Your task to perform on an android device: What's the weather? Image 0: 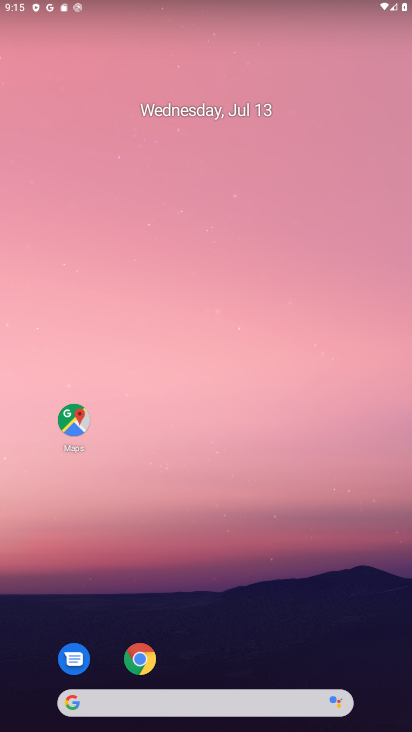
Step 0: drag from (204, 560) to (215, 320)
Your task to perform on an android device: What's the weather? Image 1: 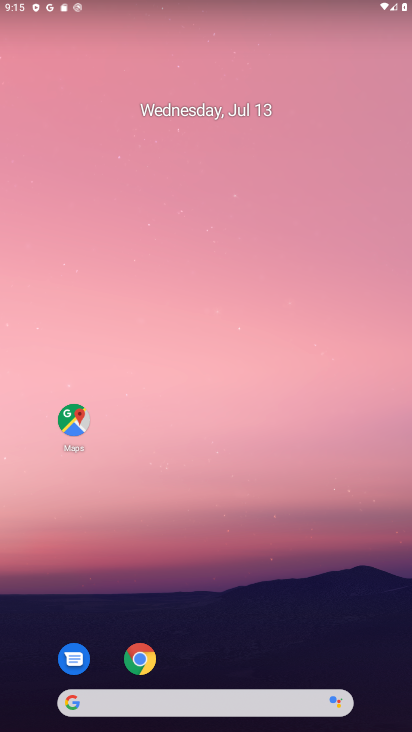
Step 1: drag from (207, 627) to (213, 118)
Your task to perform on an android device: What's the weather? Image 2: 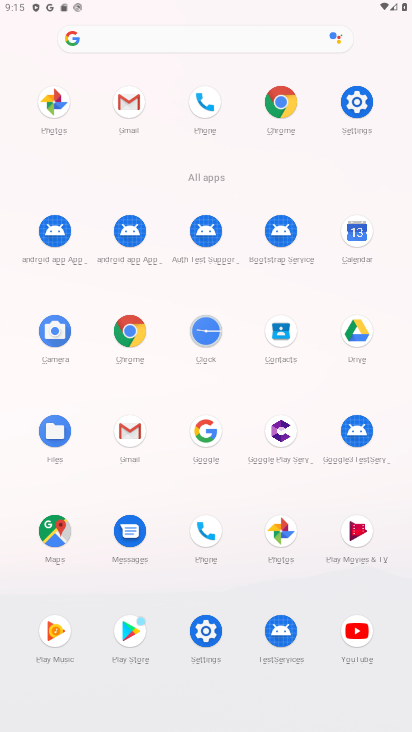
Step 2: click (266, 99)
Your task to perform on an android device: What's the weather? Image 3: 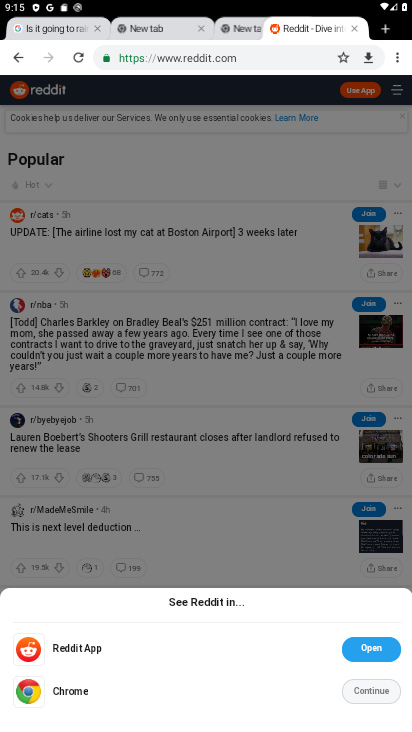
Step 3: click (353, 29)
Your task to perform on an android device: What's the weather? Image 4: 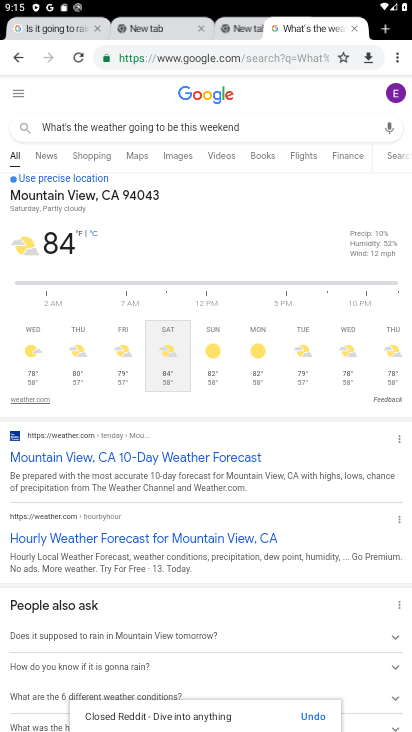
Step 4: click (384, 27)
Your task to perform on an android device: What's the weather? Image 5: 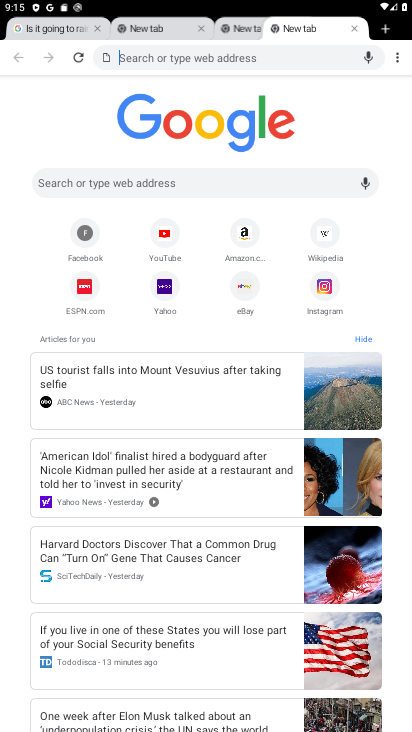
Step 5: click (230, 172)
Your task to perform on an android device: What's the weather? Image 6: 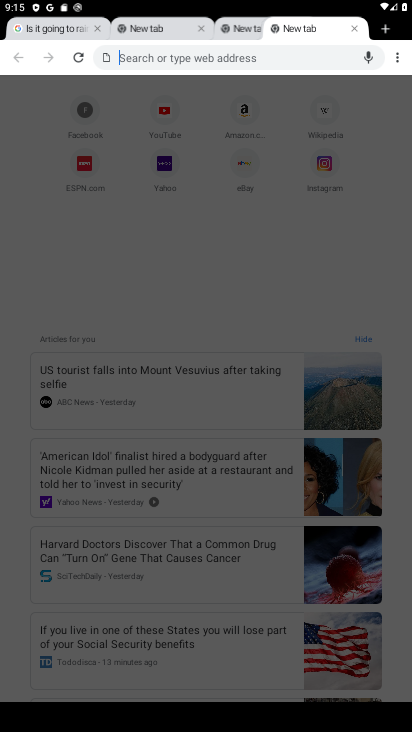
Step 6: type "What's the weather "
Your task to perform on an android device: What's the weather? Image 7: 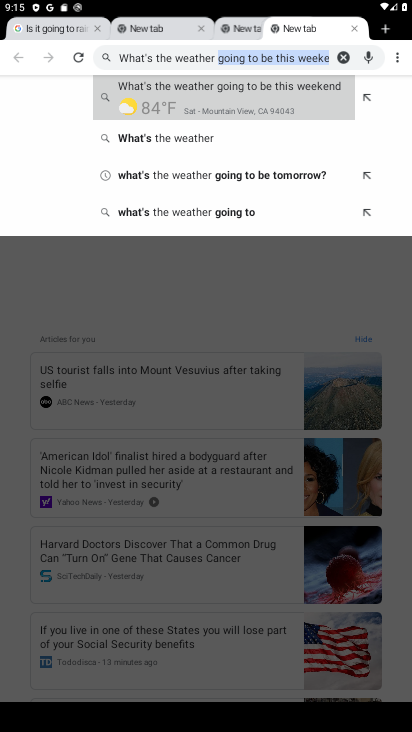
Step 7: click (189, 102)
Your task to perform on an android device: What's the weather? Image 8: 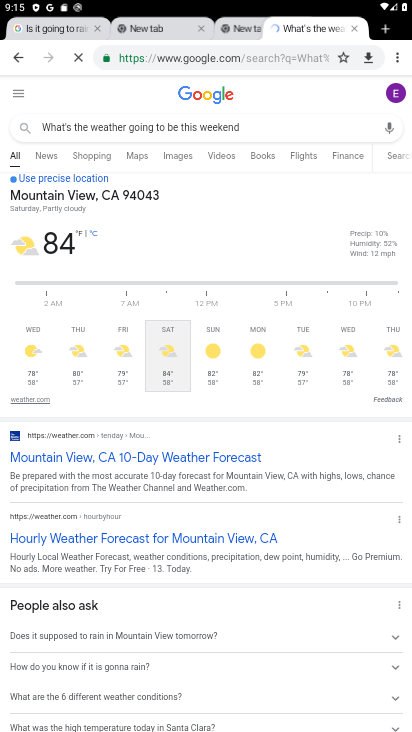
Step 8: click (356, 29)
Your task to perform on an android device: What's the weather? Image 9: 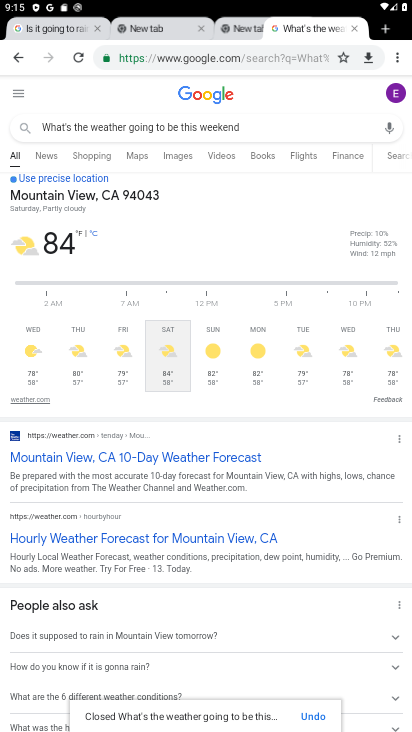
Step 9: click (381, 27)
Your task to perform on an android device: What's the weather? Image 10: 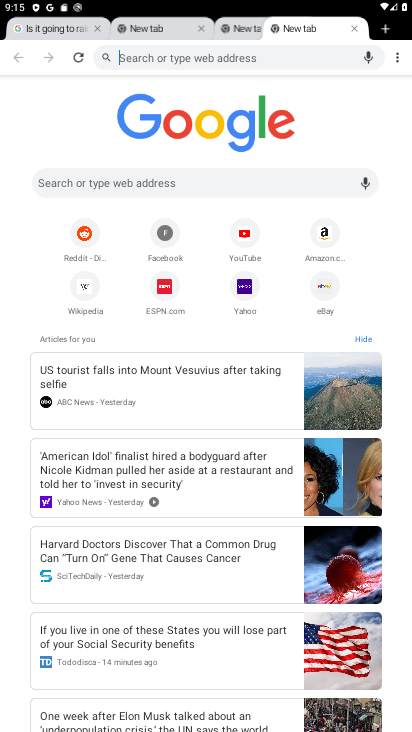
Step 10: click (187, 179)
Your task to perform on an android device: What's the weather? Image 11: 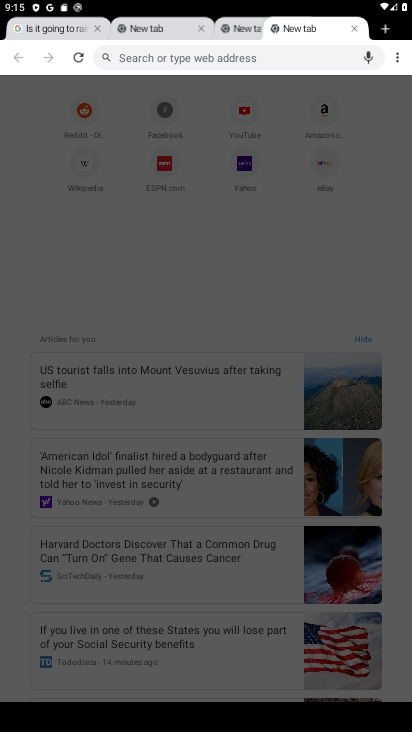
Step 11: type "What's the weather "
Your task to perform on an android device: What's the weather? Image 12: 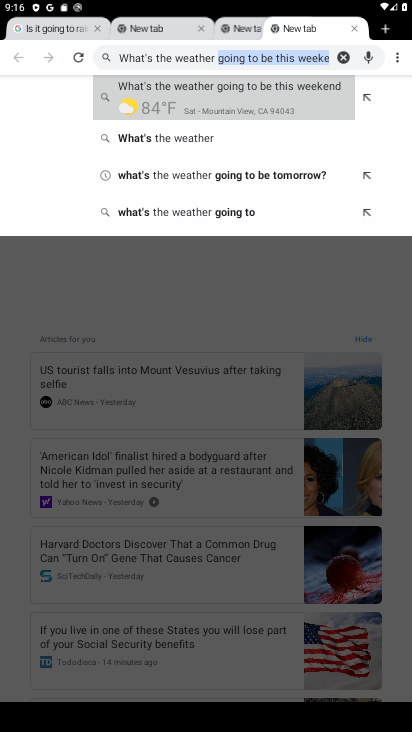
Step 12: click (186, 140)
Your task to perform on an android device: What's the weather? Image 13: 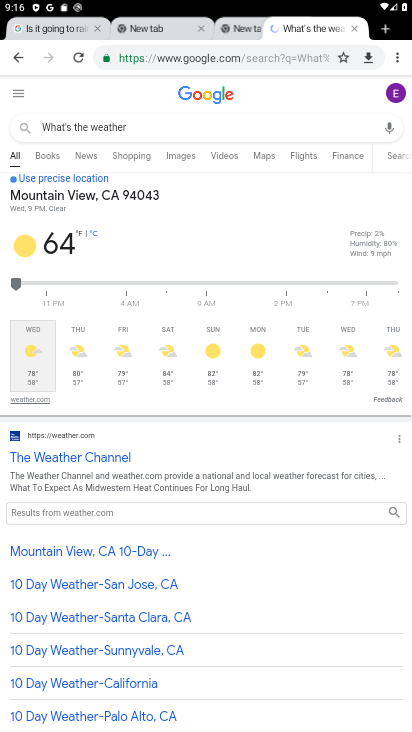
Step 13: task complete